Your task to perform on an android device: Go to display settings Image 0: 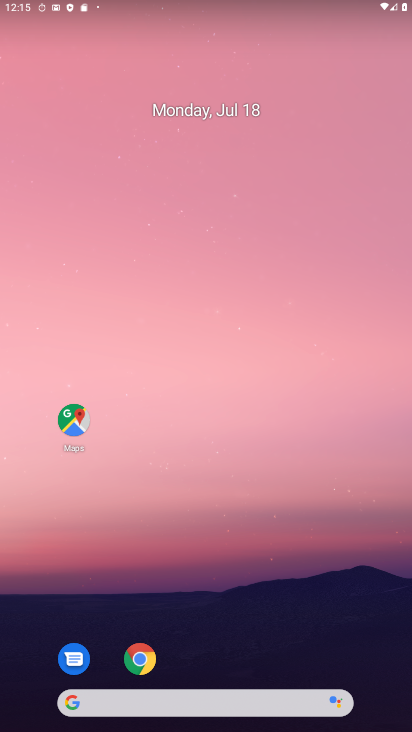
Step 0: drag from (239, 660) to (178, 115)
Your task to perform on an android device: Go to display settings Image 1: 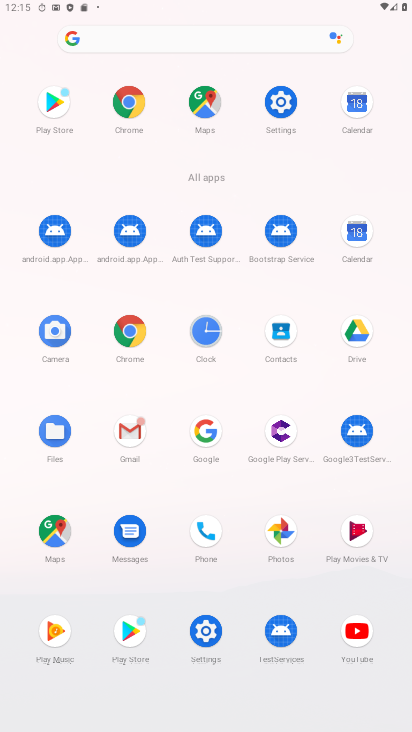
Step 1: click (210, 631)
Your task to perform on an android device: Go to display settings Image 2: 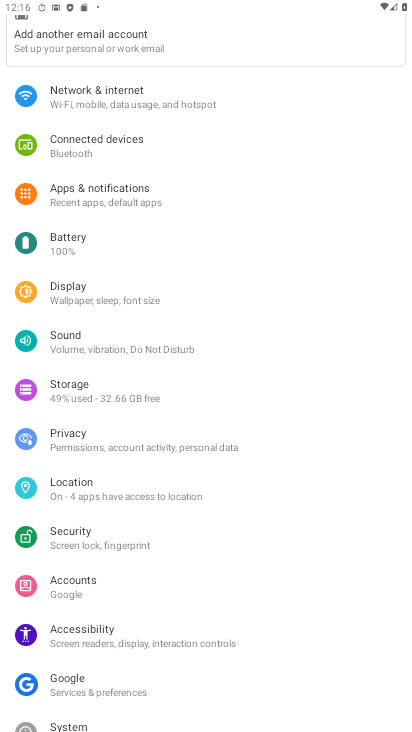
Step 2: click (111, 294)
Your task to perform on an android device: Go to display settings Image 3: 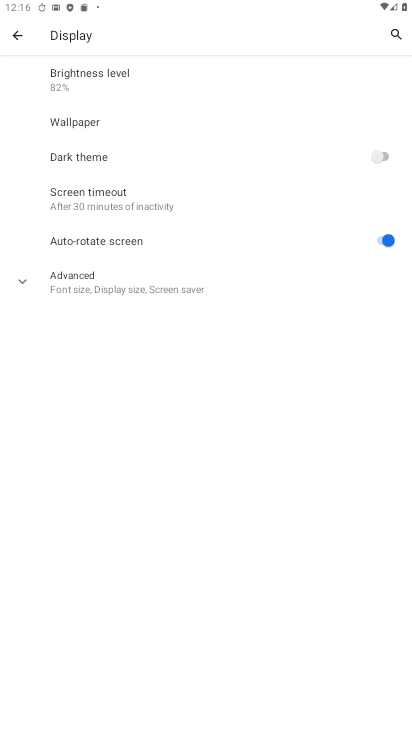
Step 3: task complete